Your task to perform on an android device: Open battery settings Image 0: 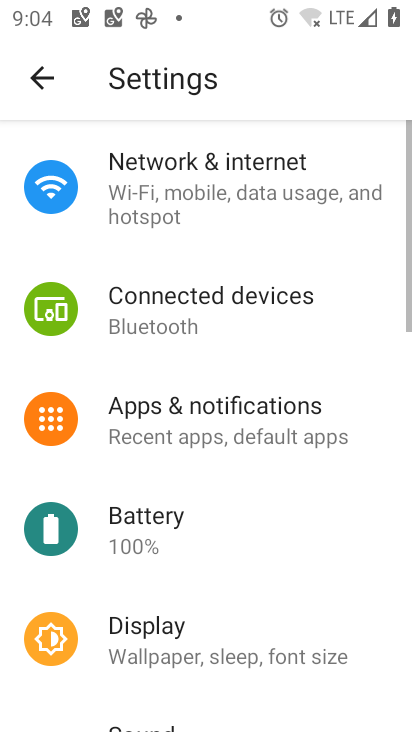
Step 0: press home button
Your task to perform on an android device: Open battery settings Image 1: 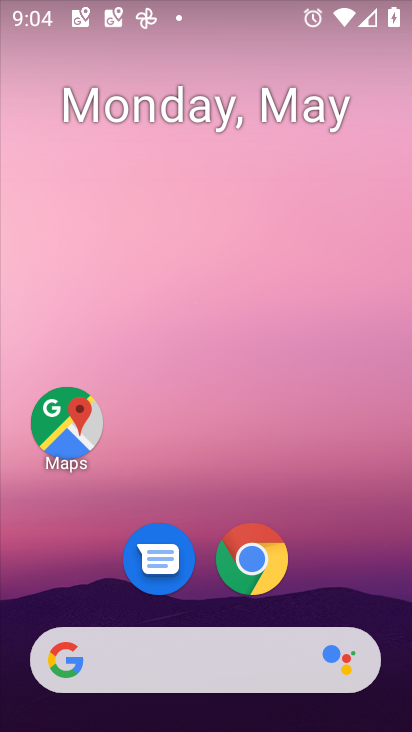
Step 1: drag from (391, 606) to (368, 147)
Your task to perform on an android device: Open battery settings Image 2: 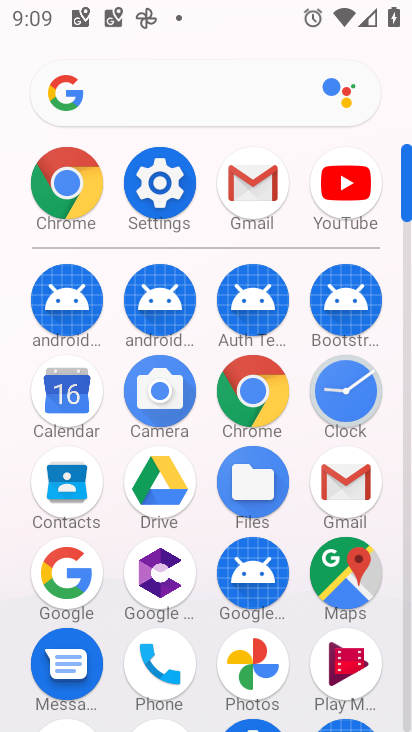
Step 2: click (168, 201)
Your task to perform on an android device: Open battery settings Image 3: 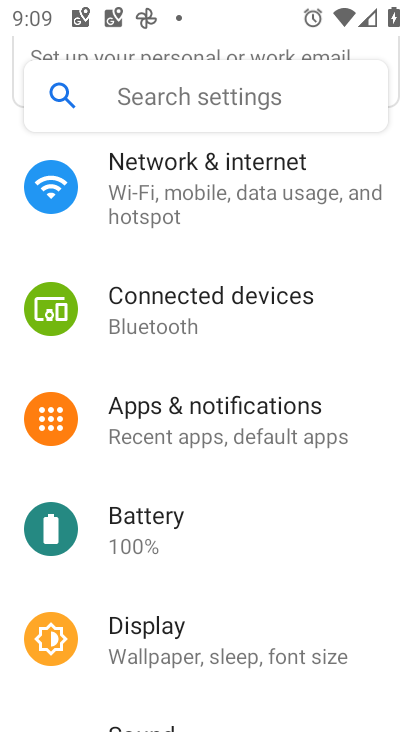
Step 3: click (194, 541)
Your task to perform on an android device: Open battery settings Image 4: 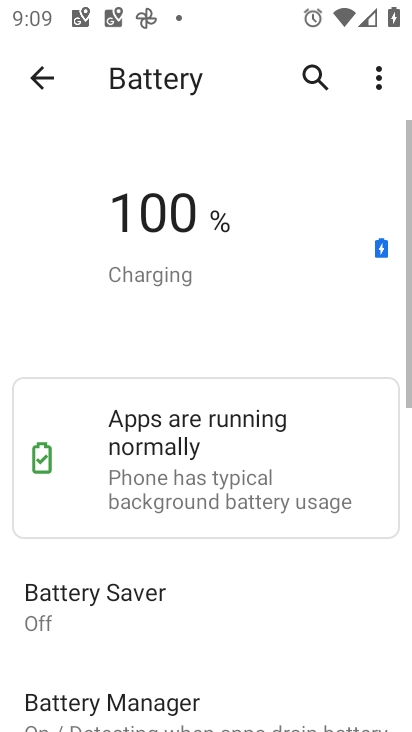
Step 4: task complete